Your task to perform on an android device: What's the weather? Image 0: 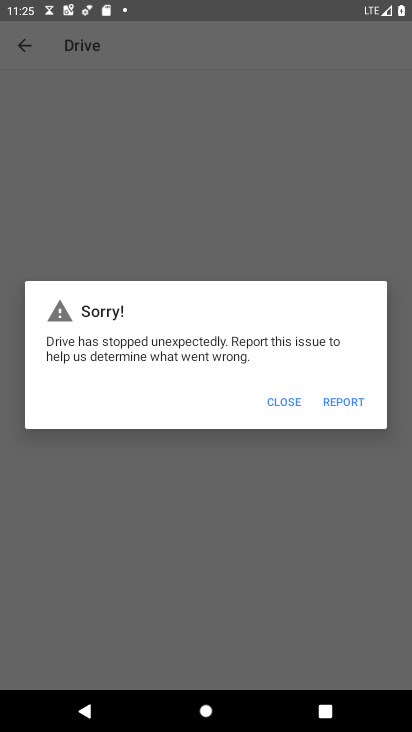
Step 0: press home button
Your task to perform on an android device: What's the weather? Image 1: 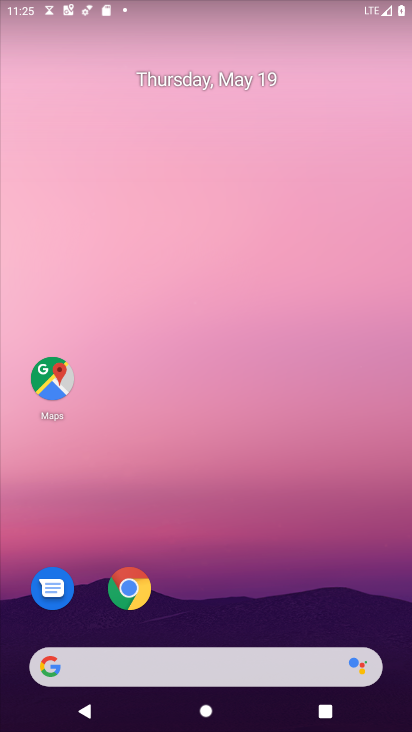
Step 1: drag from (295, 566) to (168, 41)
Your task to perform on an android device: What's the weather? Image 2: 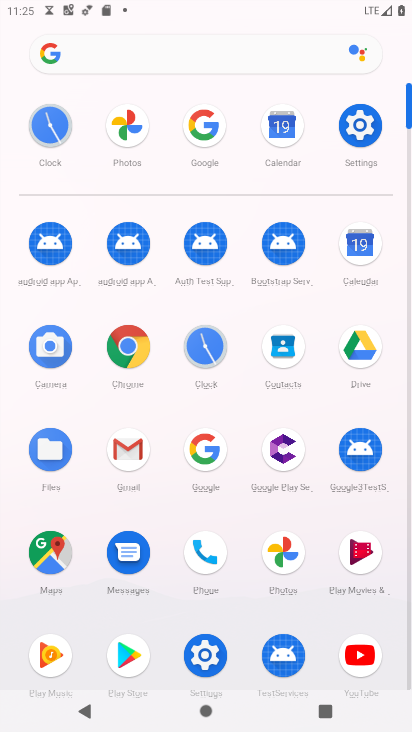
Step 2: click (198, 450)
Your task to perform on an android device: What's the weather? Image 3: 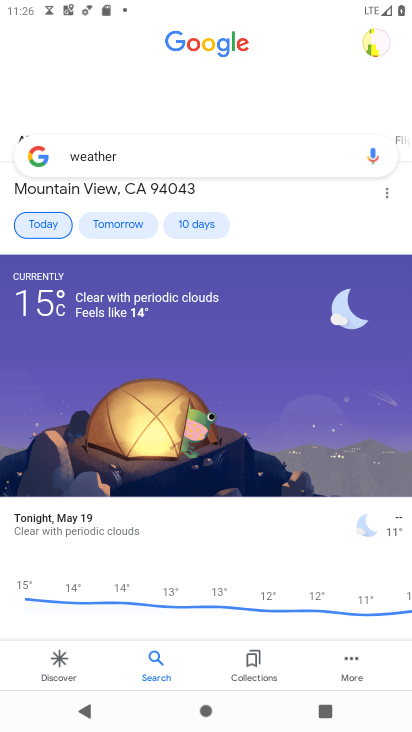
Step 3: task complete